Your task to perform on an android device: View the shopping cart on costco.com. Image 0: 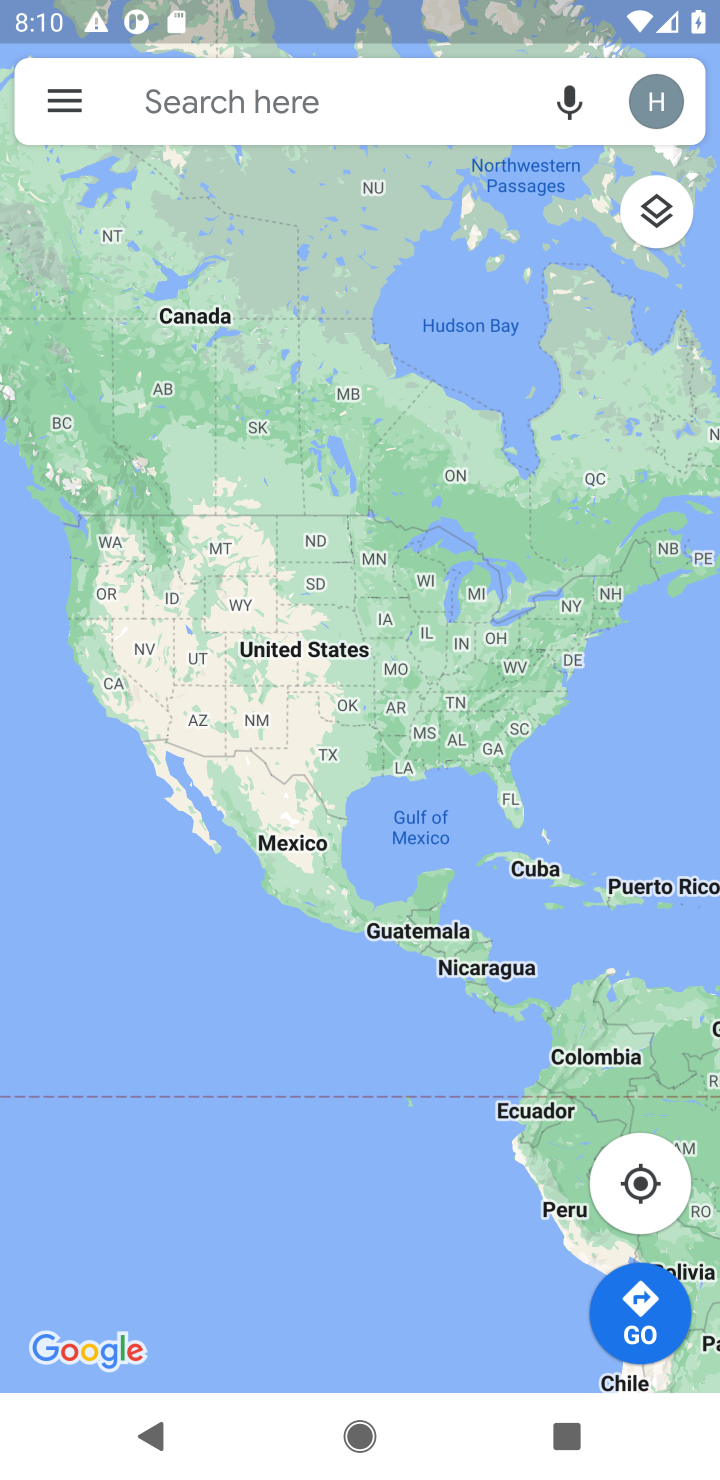
Step 0: press home button
Your task to perform on an android device: View the shopping cart on costco.com. Image 1: 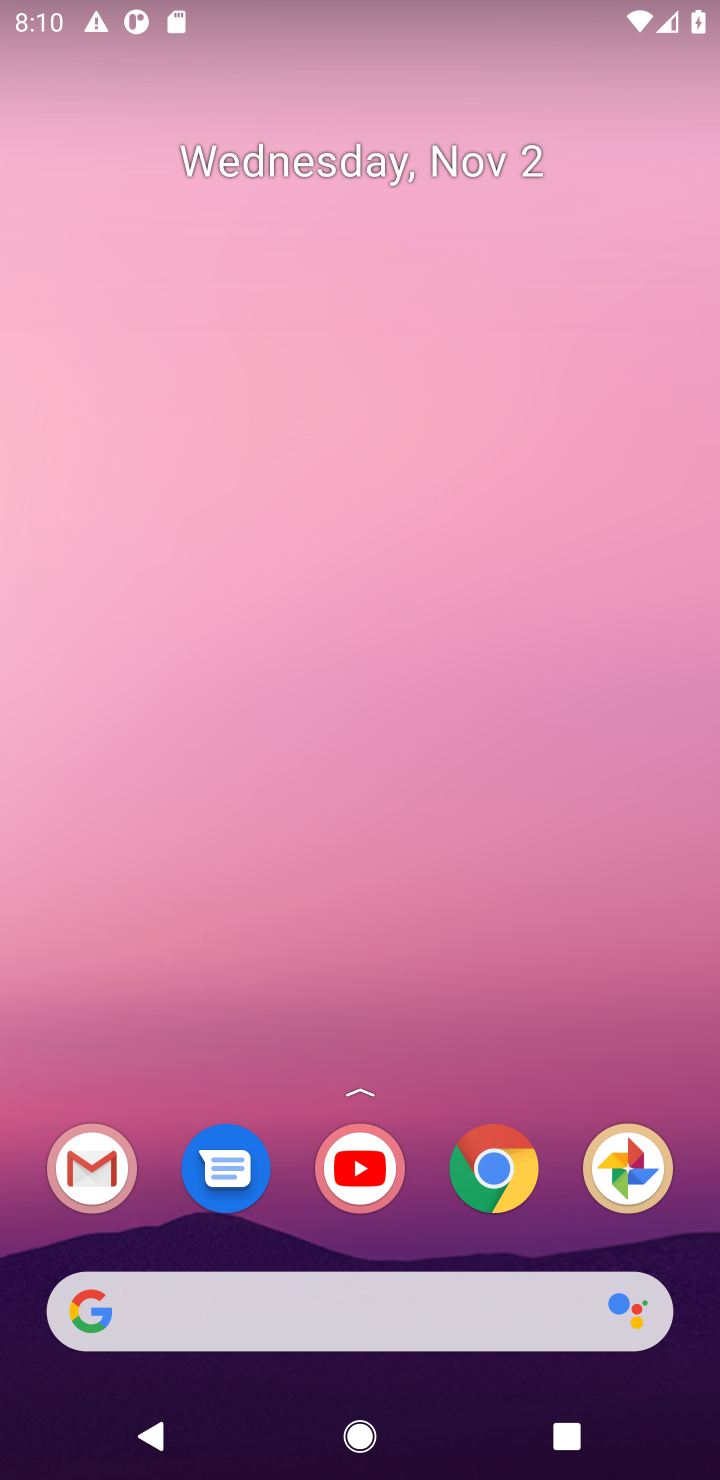
Step 1: click (493, 1174)
Your task to perform on an android device: View the shopping cart on costco.com. Image 2: 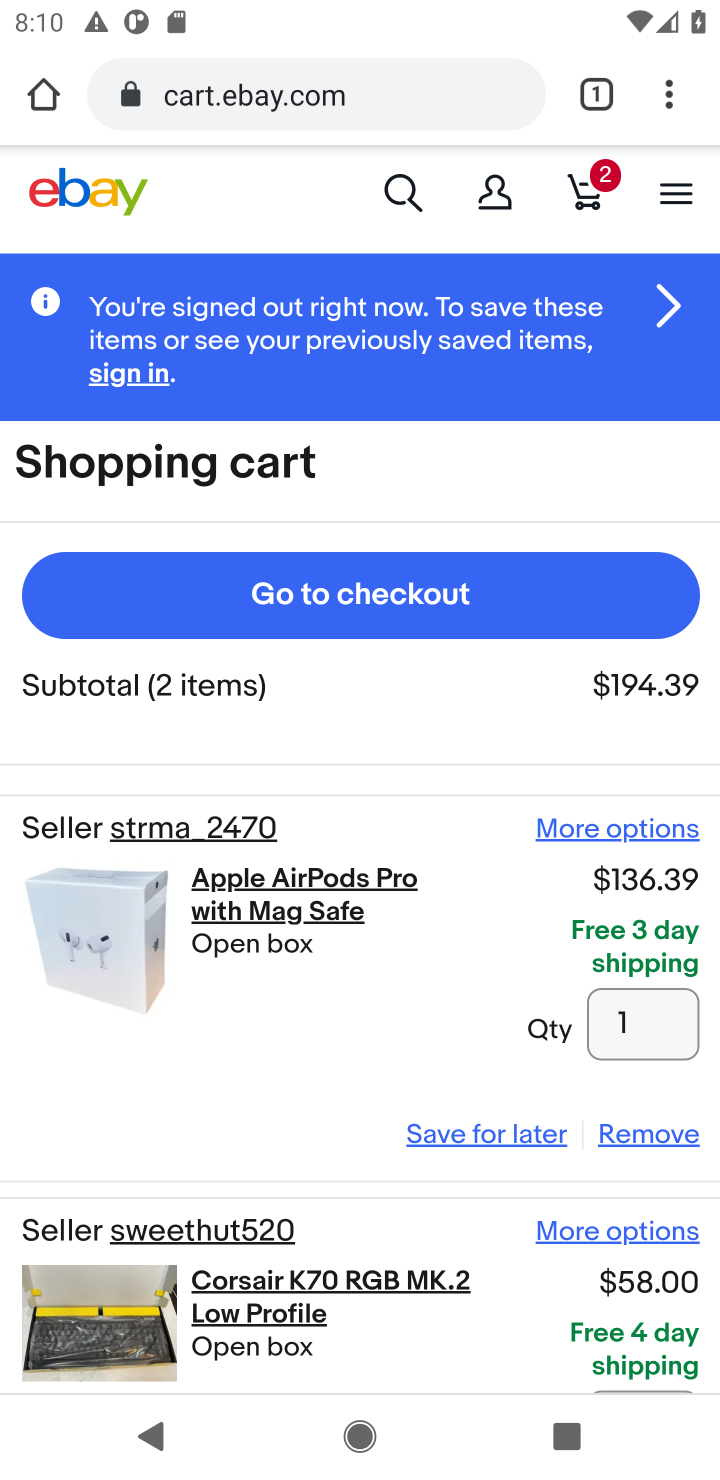
Step 2: click (373, 95)
Your task to perform on an android device: View the shopping cart on costco.com. Image 3: 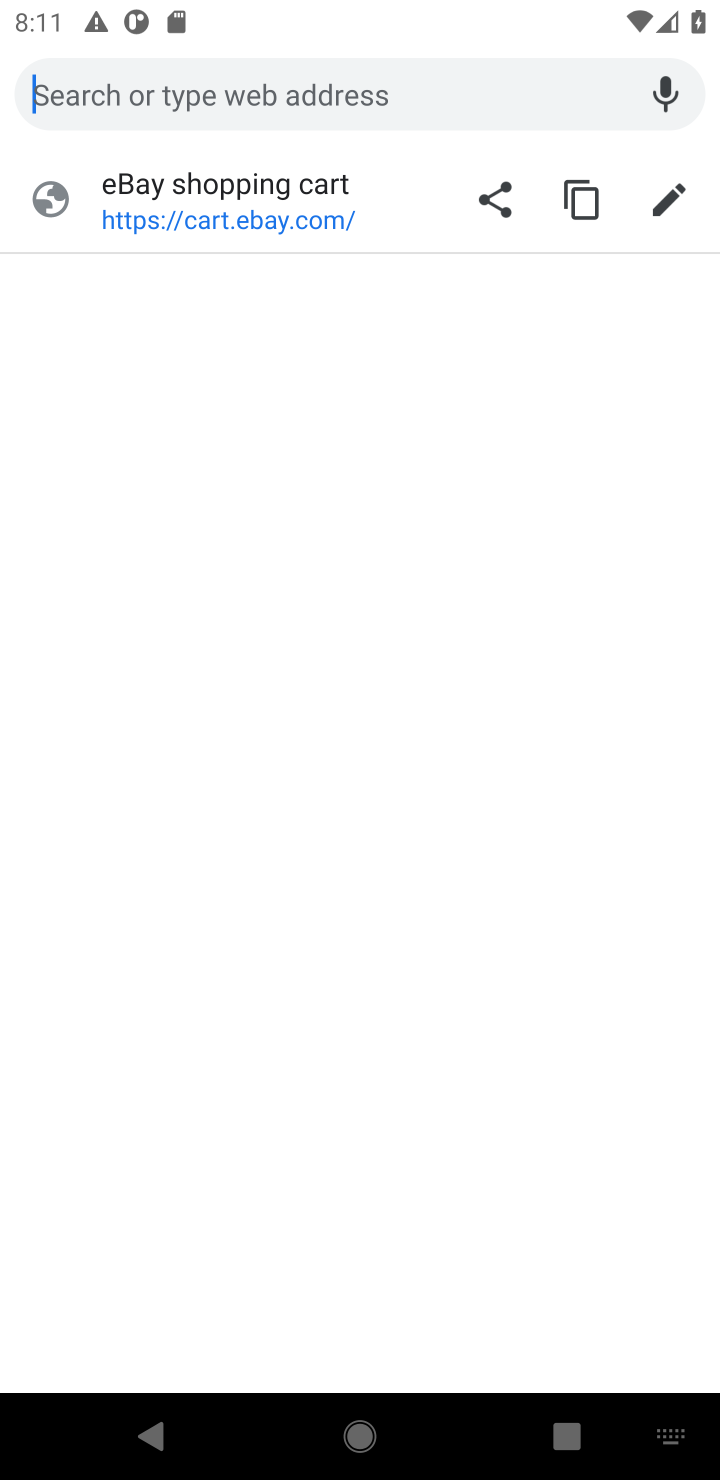
Step 3: type "costco.com"
Your task to perform on an android device: View the shopping cart on costco.com. Image 4: 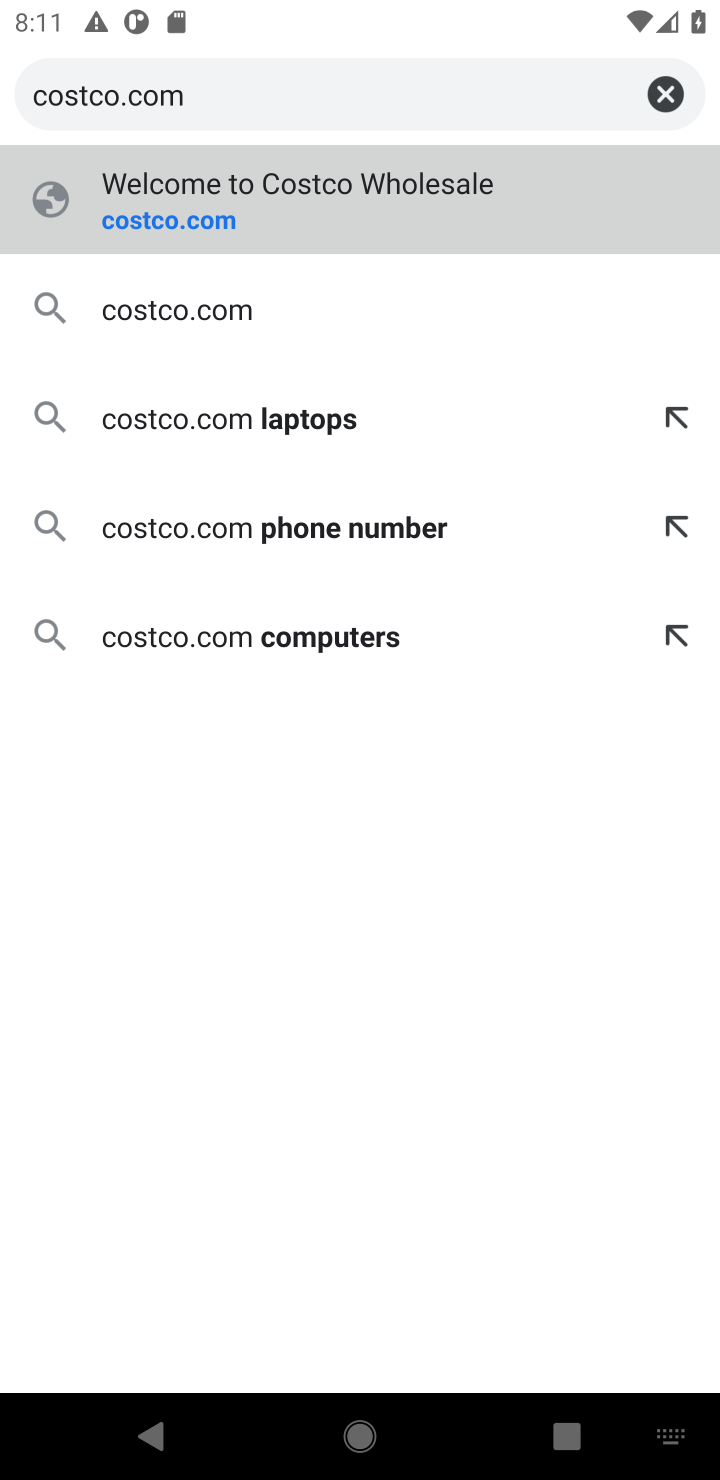
Step 4: click (137, 314)
Your task to perform on an android device: View the shopping cart on costco.com. Image 5: 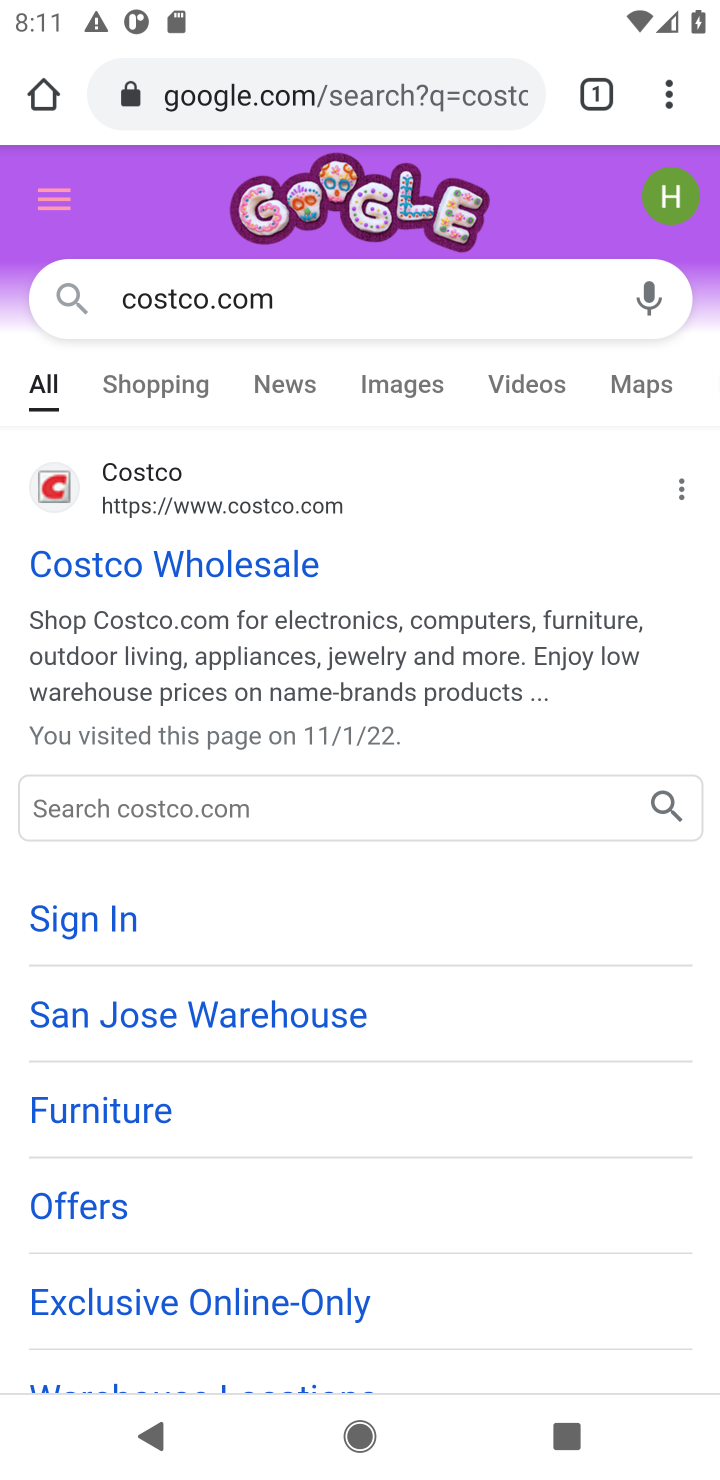
Step 5: click (223, 543)
Your task to perform on an android device: View the shopping cart on costco.com. Image 6: 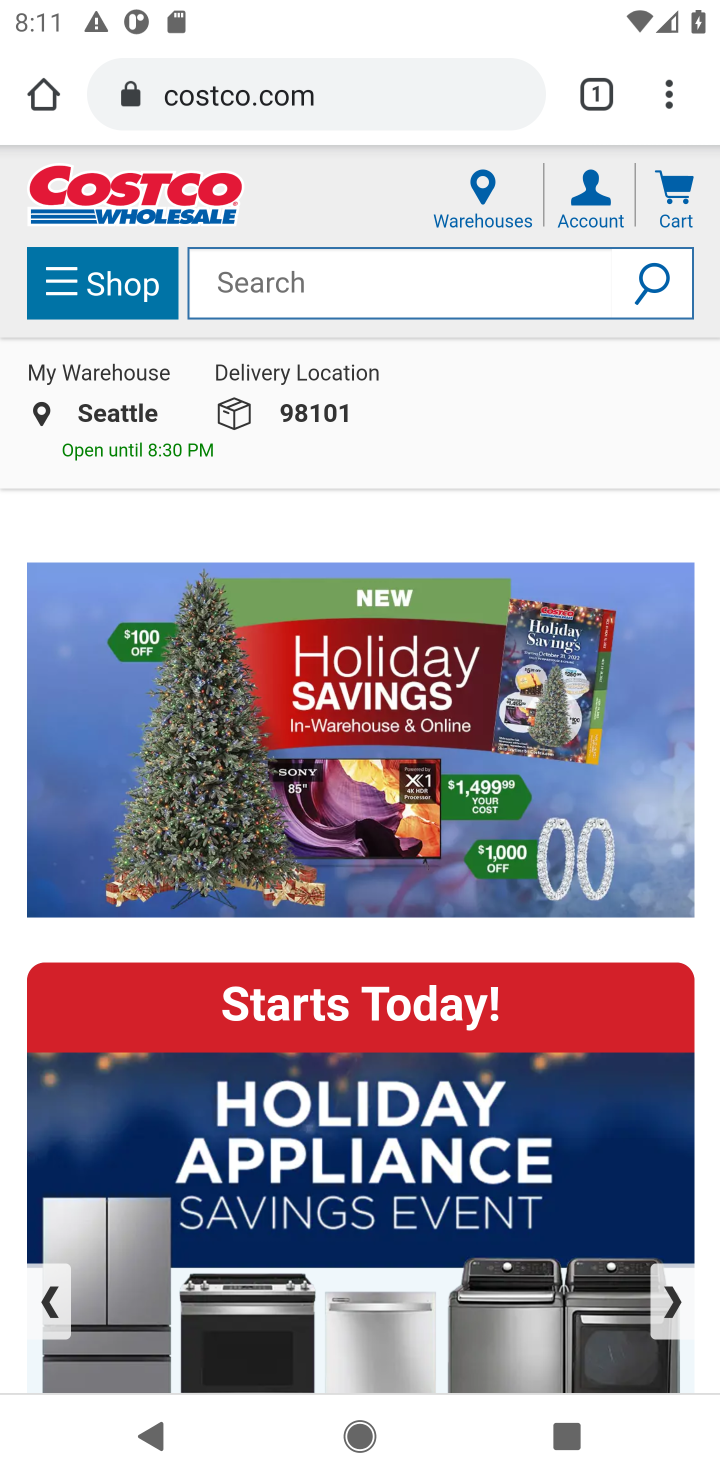
Step 6: click (681, 199)
Your task to perform on an android device: View the shopping cart on costco.com. Image 7: 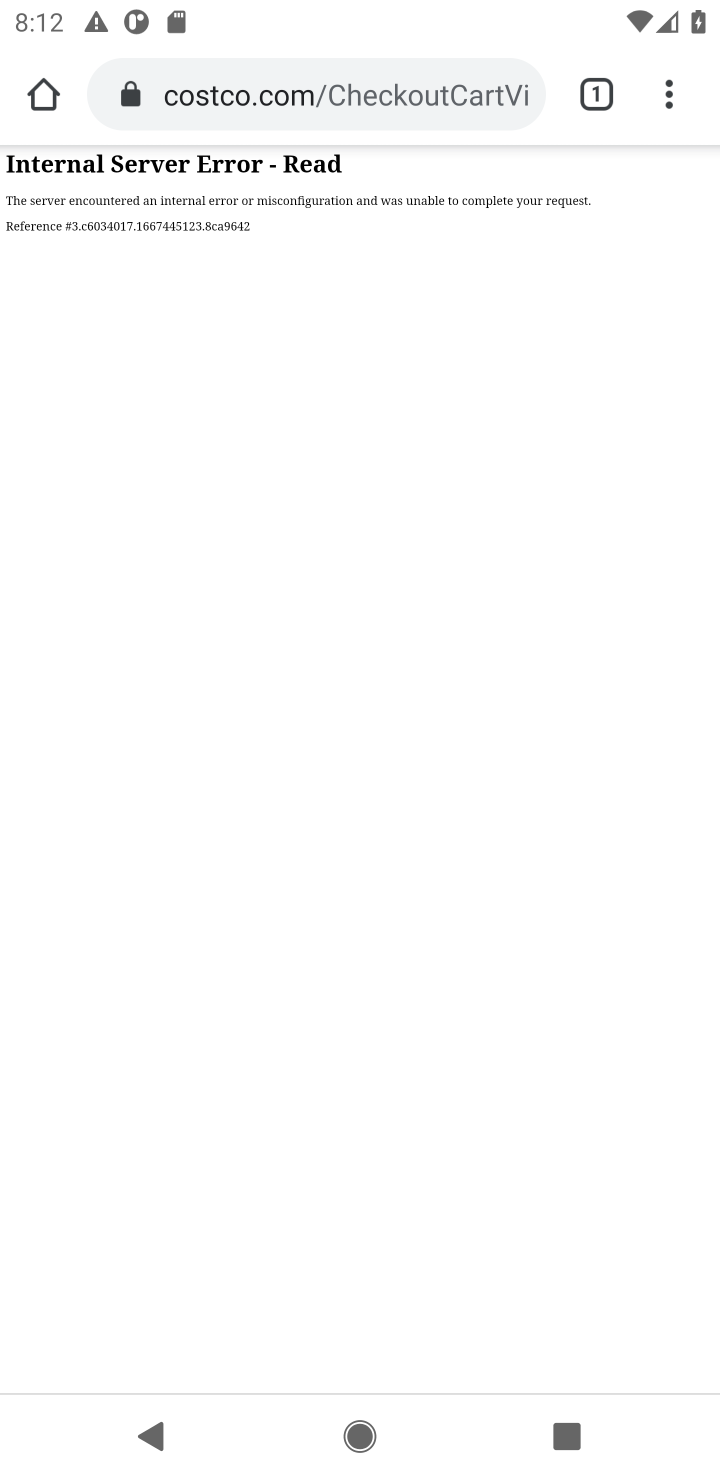
Step 7: task complete